Your task to perform on an android device: move a message to another label in the gmail app Image 0: 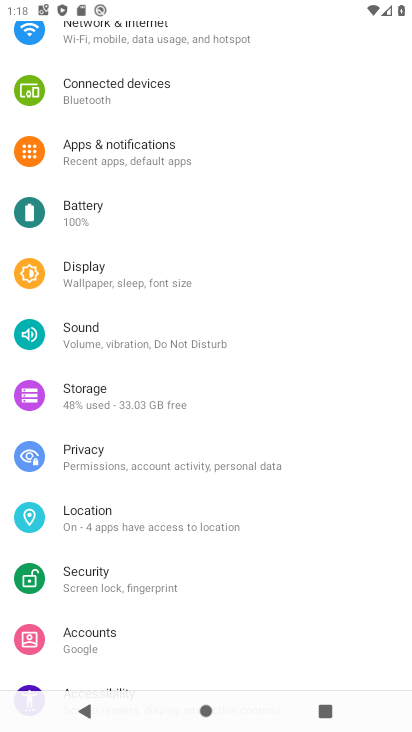
Step 0: press home button
Your task to perform on an android device: move a message to another label in the gmail app Image 1: 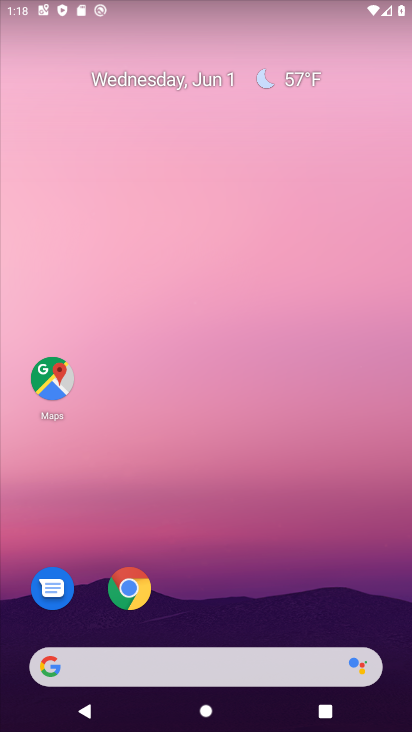
Step 1: drag from (286, 580) to (138, 74)
Your task to perform on an android device: move a message to another label in the gmail app Image 2: 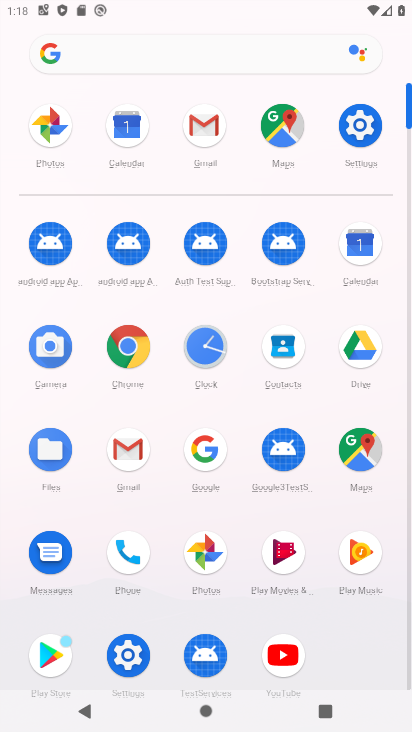
Step 2: click (126, 436)
Your task to perform on an android device: move a message to another label in the gmail app Image 3: 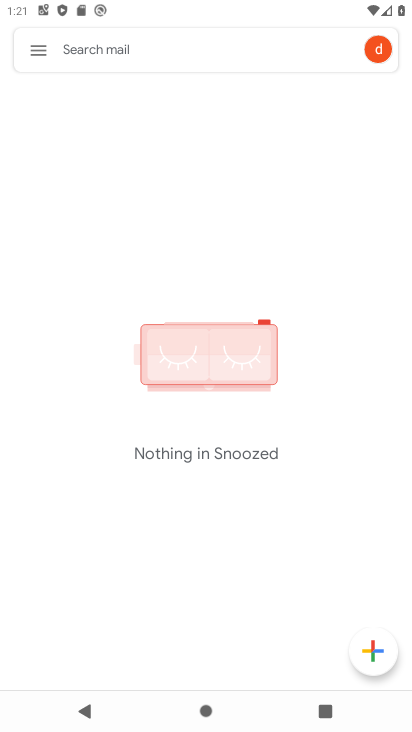
Step 3: task complete